Your task to perform on an android device: find which apps use the phone's location Image 0: 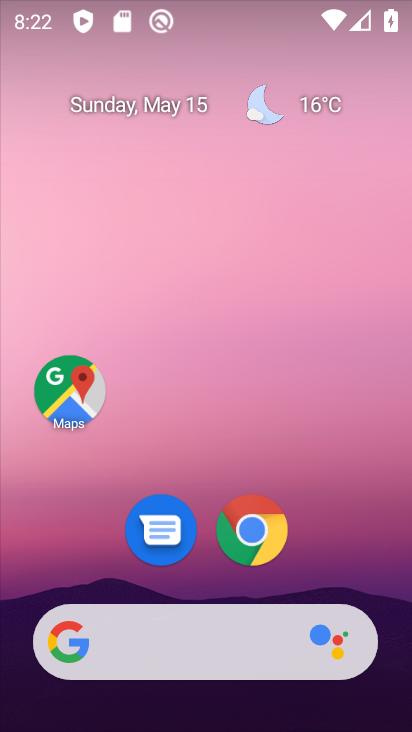
Step 0: drag from (227, 708) to (235, 85)
Your task to perform on an android device: find which apps use the phone's location Image 1: 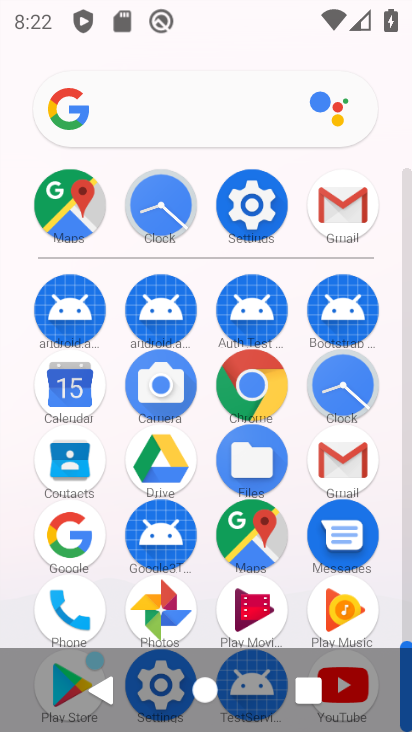
Step 1: click (258, 217)
Your task to perform on an android device: find which apps use the phone's location Image 2: 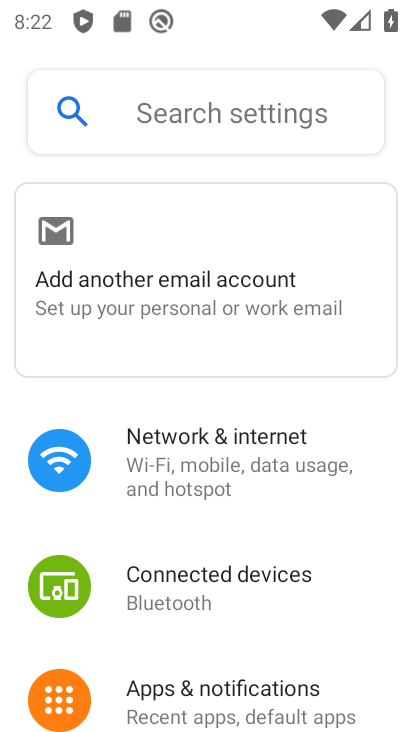
Step 2: drag from (201, 658) to (228, 148)
Your task to perform on an android device: find which apps use the phone's location Image 3: 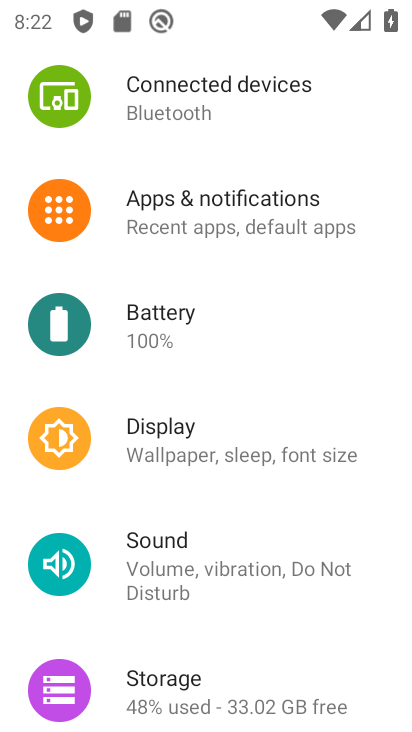
Step 3: drag from (175, 647) to (223, 297)
Your task to perform on an android device: find which apps use the phone's location Image 4: 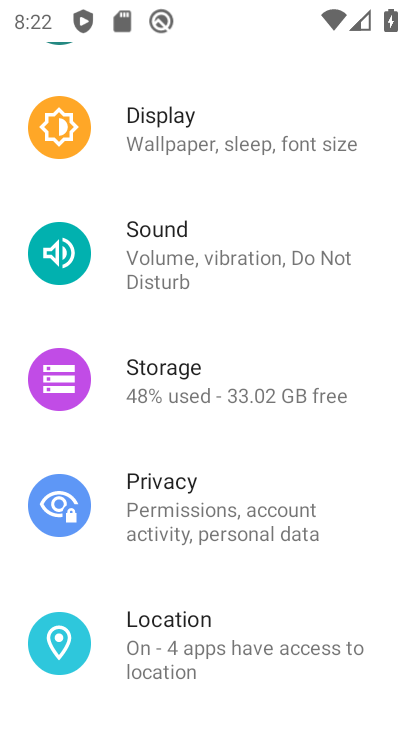
Step 4: click (163, 650)
Your task to perform on an android device: find which apps use the phone's location Image 5: 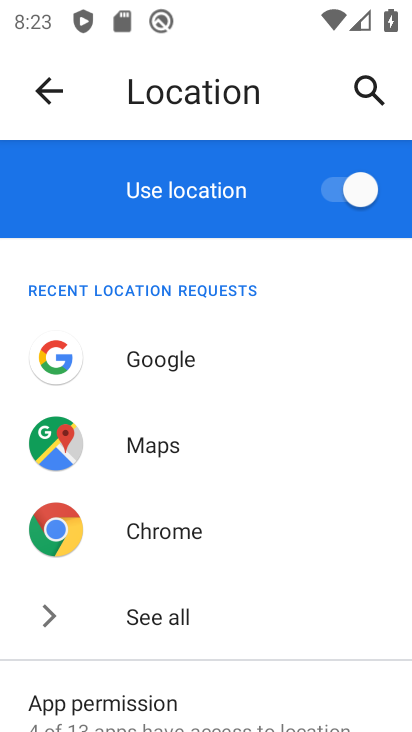
Step 5: drag from (179, 696) to (208, 231)
Your task to perform on an android device: find which apps use the phone's location Image 6: 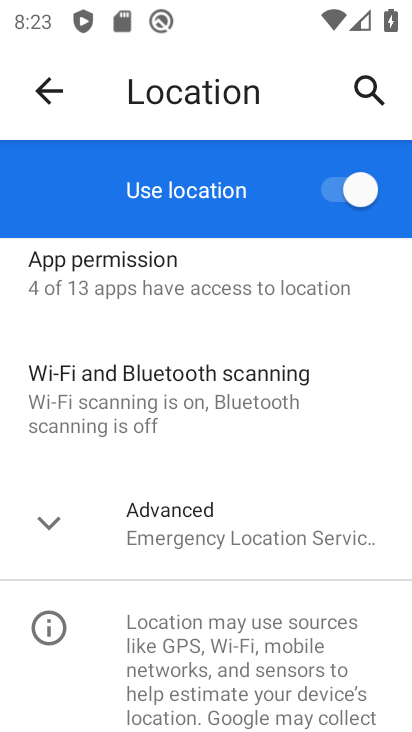
Step 6: click (134, 271)
Your task to perform on an android device: find which apps use the phone's location Image 7: 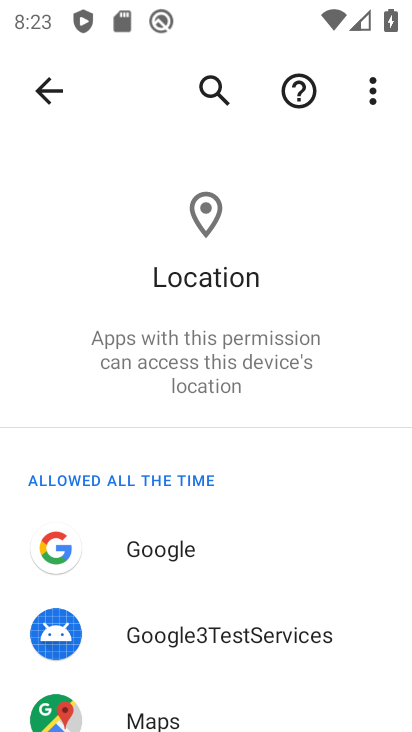
Step 7: task complete